Your task to perform on an android device: stop showing notifications on the lock screen Image 0: 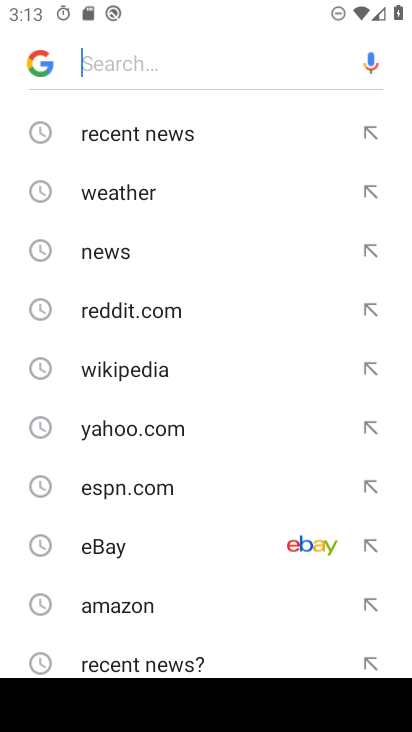
Step 0: press home button
Your task to perform on an android device: stop showing notifications on the lock screen Image 1: 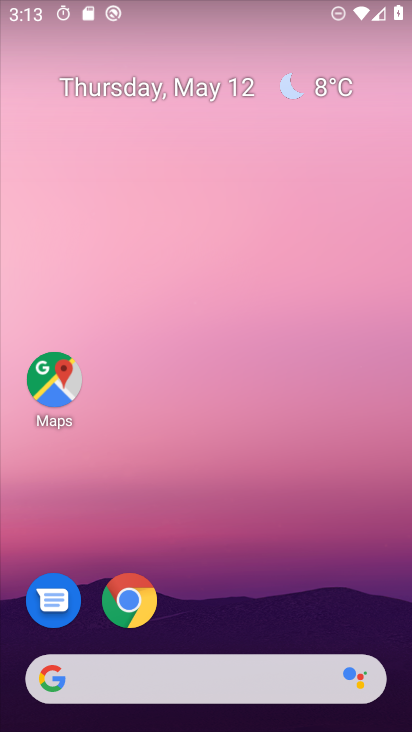
Step 1: drag from (214, 725) to (211, 186)
Your task to perform on an android device: stop showing notifications on the lock screen Image 2: 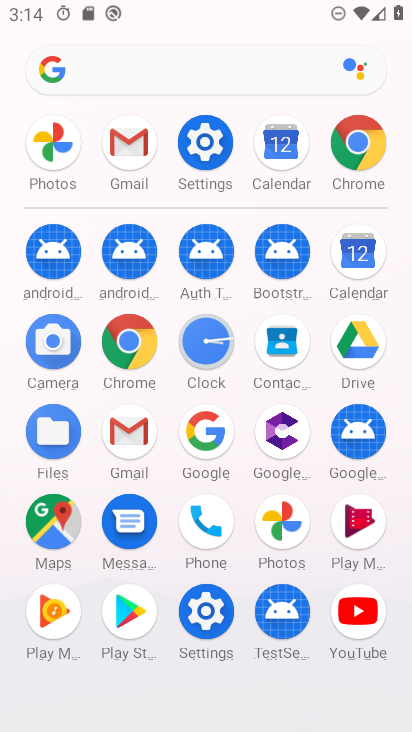
Step 2: click (199, 615)
Your task to perform on an android device: stop showing notifications on the lock screen Image 3: 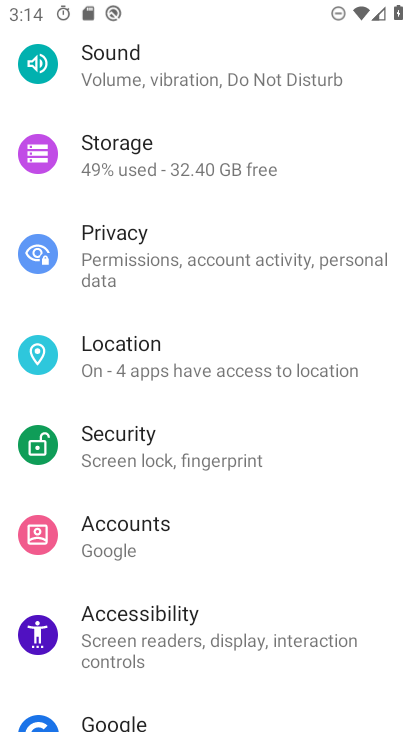
Step 3: drag from (233, 399) to (220, 473)
Your task to perform on an android device: stop showing notifications on the lock screen Image 4: 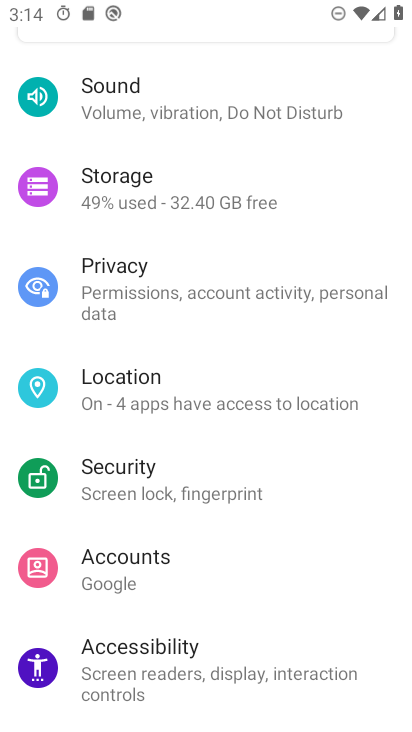
Step 4: drag from (208, 153) to (198, 588)
Your task to perform on an android device: stop showing notifications on the lock screen Image 5: 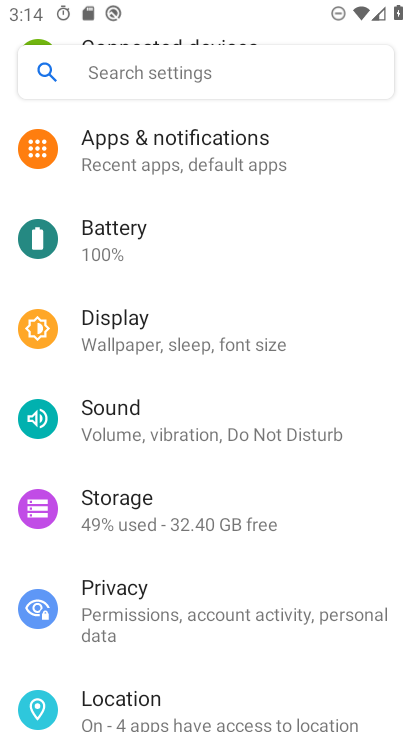
Step 5: click (182, 158)
Your task to perform on an android device: stop showing notifications on the lock screen Image 6: 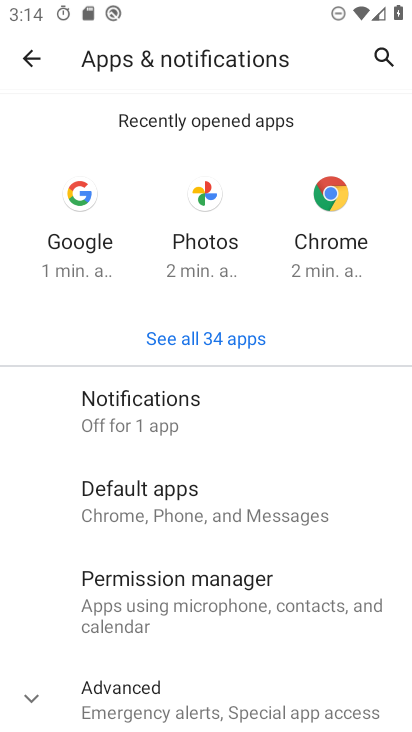
Step 6: click (109, 416)
Your task to perform on an android device: stop showing notifications on the lock screen Image 7: 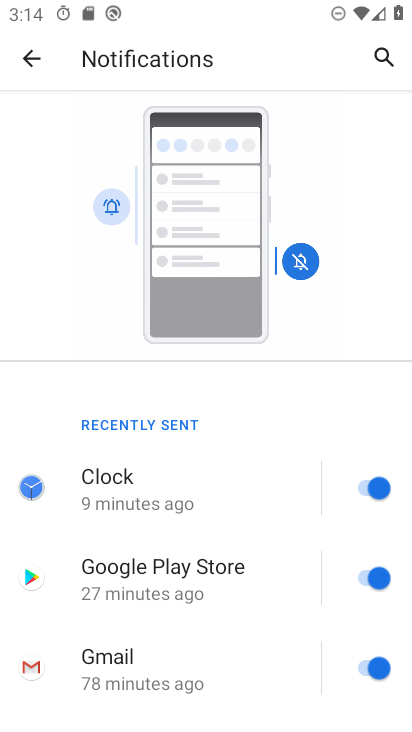
Step 7: task complete